Your task to perform on an android device: Open Reddit.com Image 0: 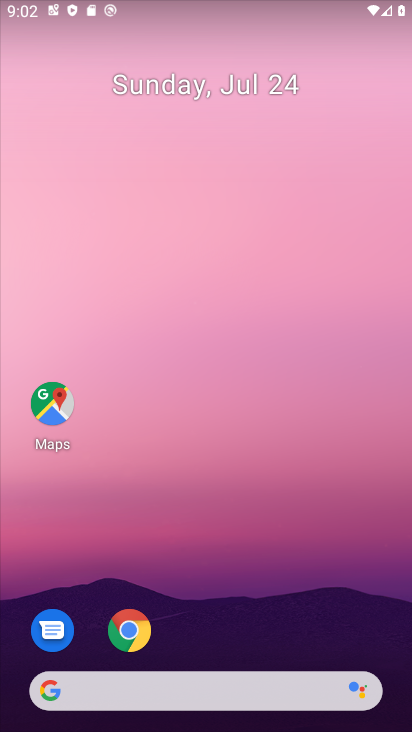
Step 0: click (144, 629)
Your task to perform on an android device: Open Reddit.com Image 1: 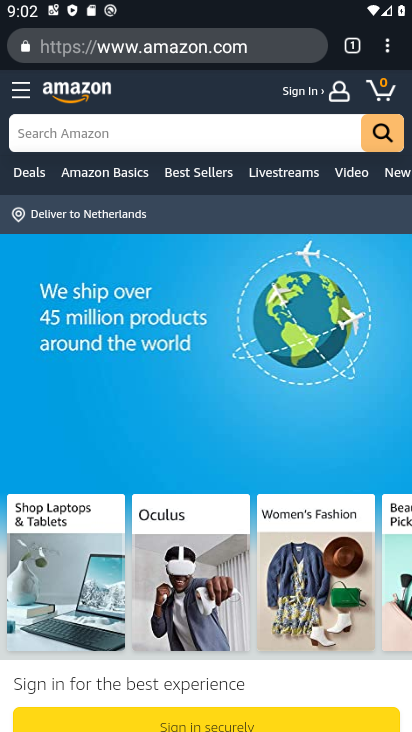
Step 1: click (345, 60)
Your task to perform on an android device: Open Reddit.com Image 2: 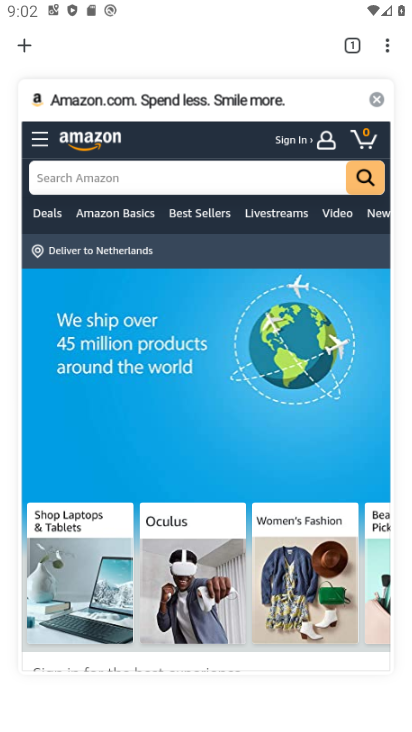
Step 2: click (19, 42)
Your task to perform on an android device: Open Reddit.com Image 3: 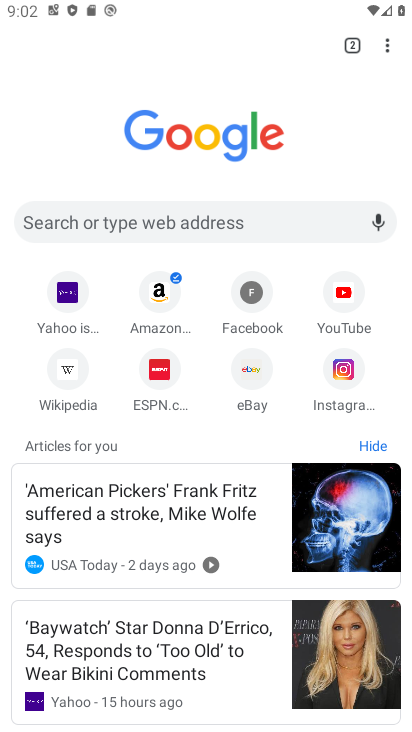
Step 3: click (147, 213)
Your task to perform on an android device: Open Reddit.com Image 4: 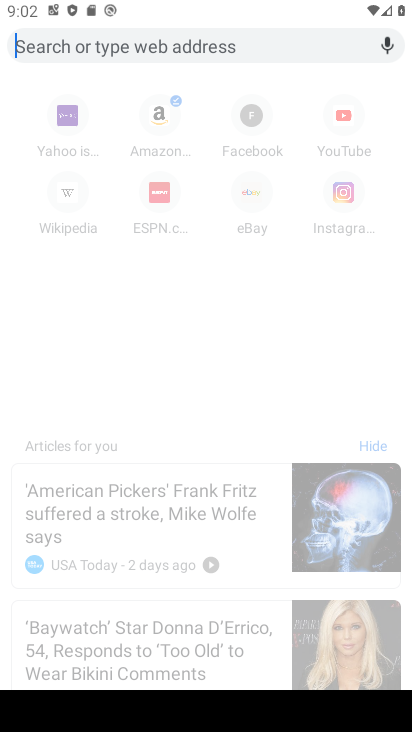
Step 4: type "Reddit.com"
Your task to perform on an android device: Open Reddit.com Image 5: 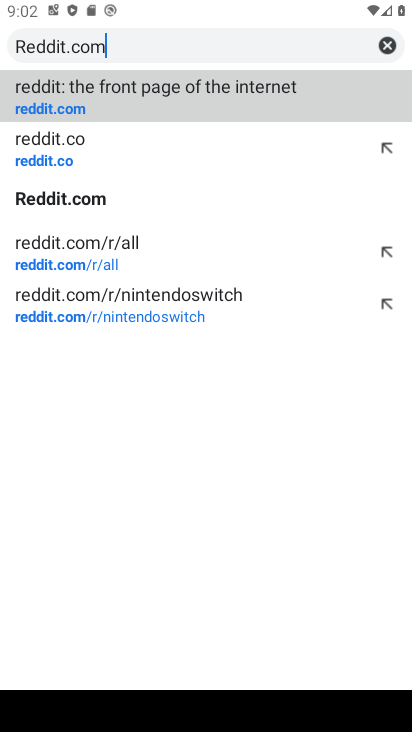
Step 5: type ""
Your task to perform on an android device: Open Reddit.com Image 6: 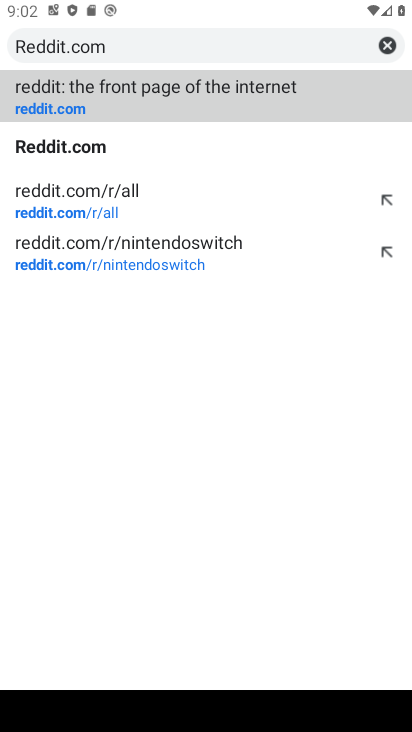
Step 6: click (113, 138)
Your task to perform on an android device: Open Reddit.com Image 7: 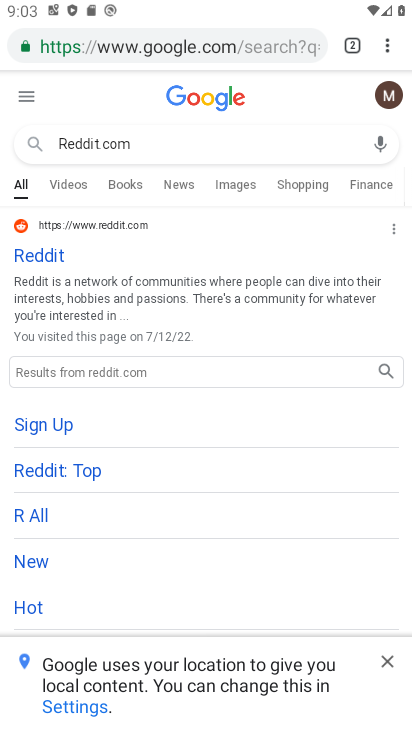
Step 7: click (62, 256)
Your task to perform on an android device: Open Reddit.com Image 8: 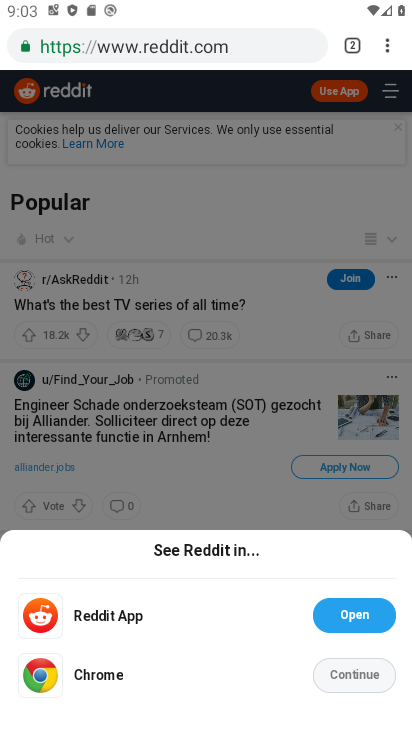
Step 8: task complete